Your task to perform on an android device: change the upload size in google photos Image 0: 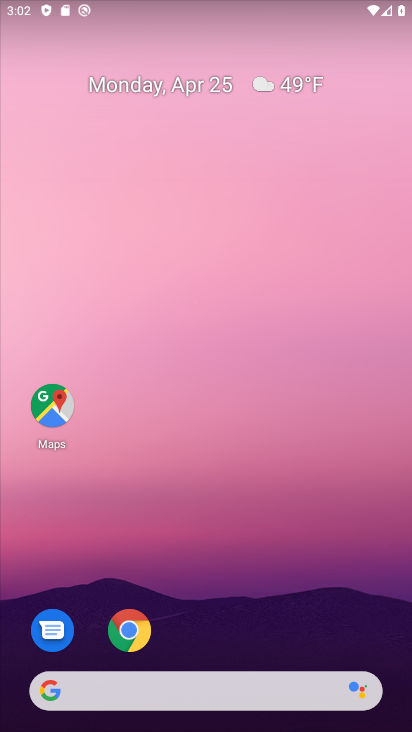
Step 0: drag from (320, 595) to (271, 43)
Your task to perform on an android device: change the upload size in google photos Image 1: 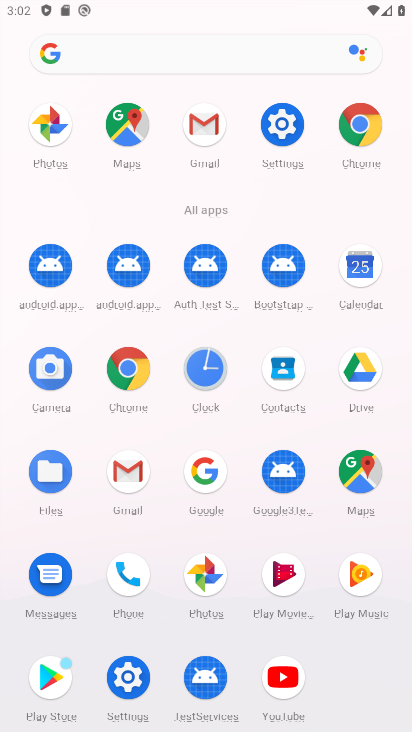
Step 1: click (54, 121)
Your task to perform on an android device: change the upload size in google photos Image 2: 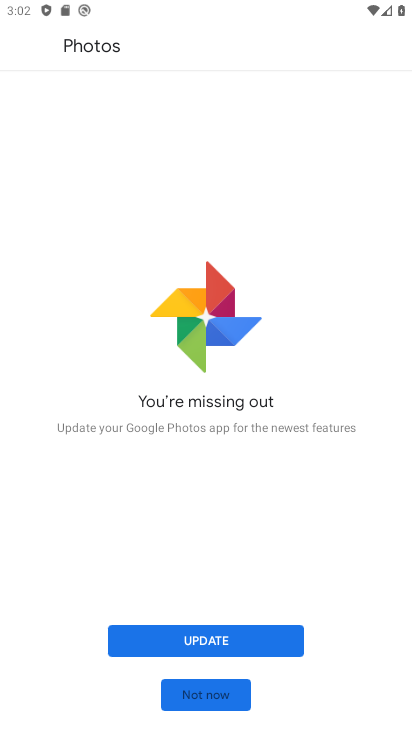
Step 2: click (239, 641)
Your task to perform on an android device: change the upload size in google photos Image 3: 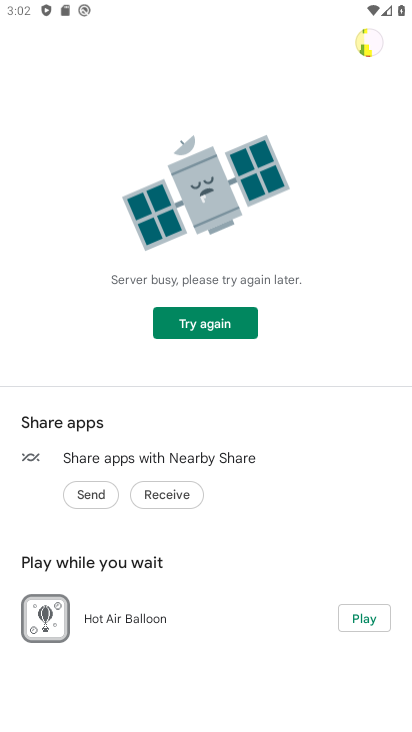
Step 3: click (216, 327)
Your task to perform on an android device: change the upload size in google photos Image 4: 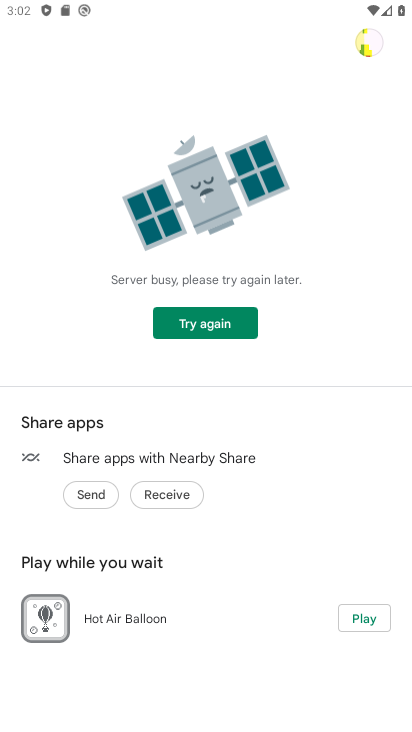
Step 4: click (216, 327)
Your task to perform on an android device: change the upload size in google photos Image 5: 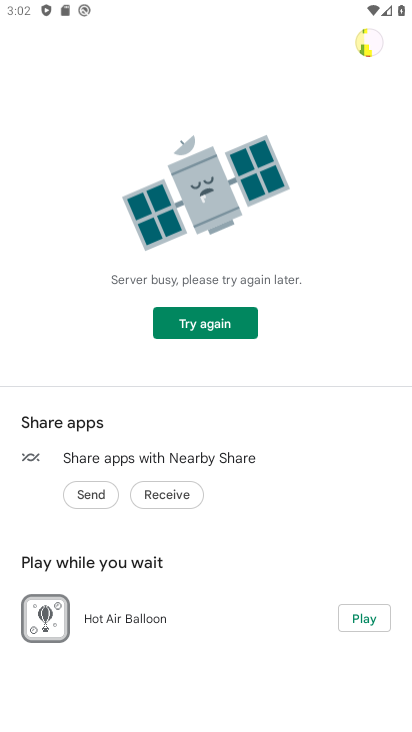
Step 5: click (216, 327)
Your task to perform on an android device: change the upload size in google photos Image 6: 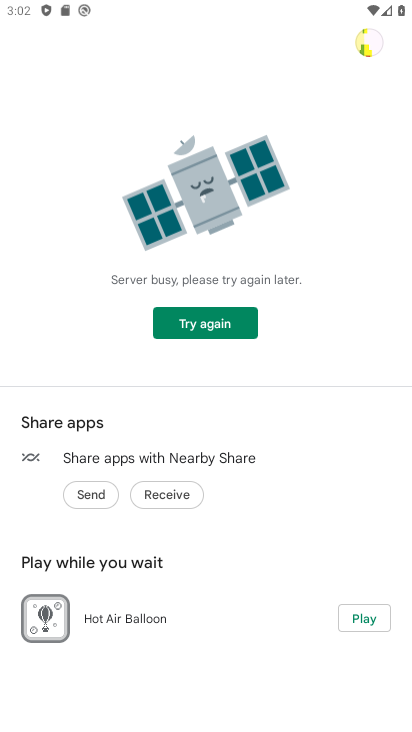
Step 6: press back button
Your task to perform on an android device: change the upload size in google photos Image 7: 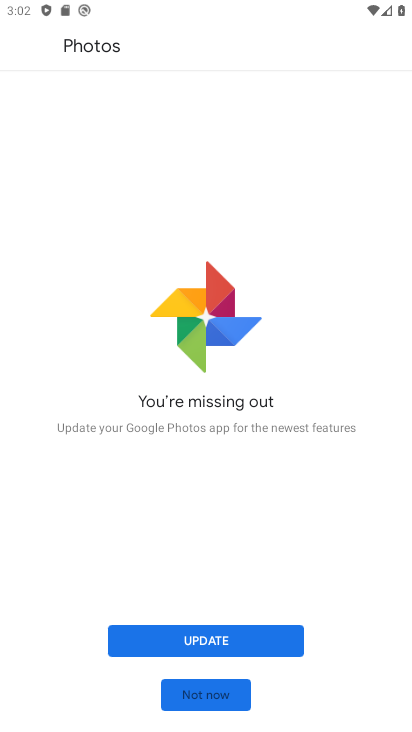
Step 7: press back button
Your task to perform on an android device: change the upload size in google photos Image 8: 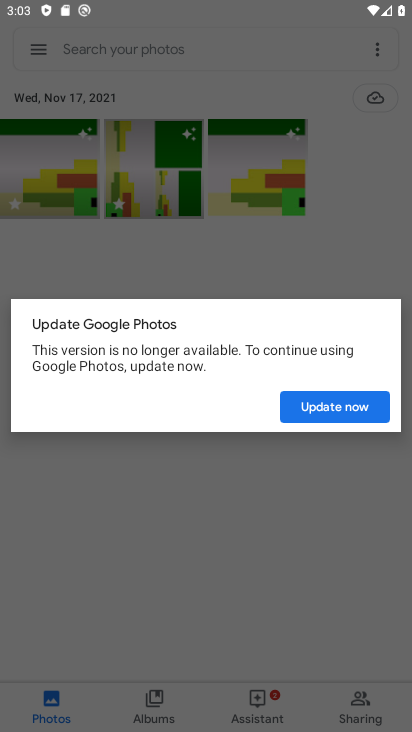
Step 8: press back button
Your task to perform on an android device: change the upload size in google photos Image 9: 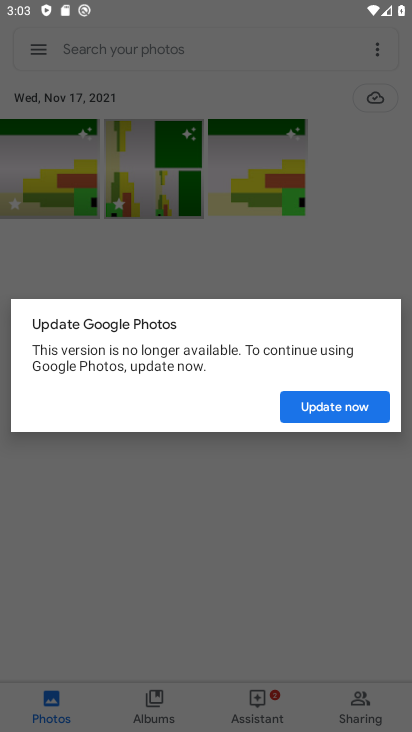
Step 9: click (373, 404)
Your task to perform on an android device: change the upload size in google photos Image 10: 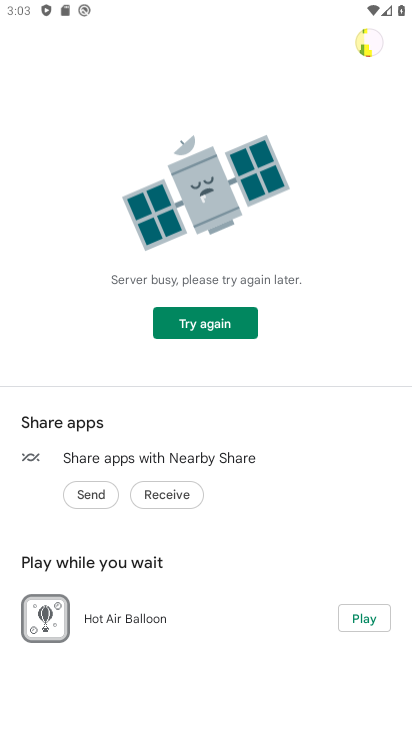
Step 10: click (237, 322)
Your task to perform on an android device: change the upload size in google photos Image 11: 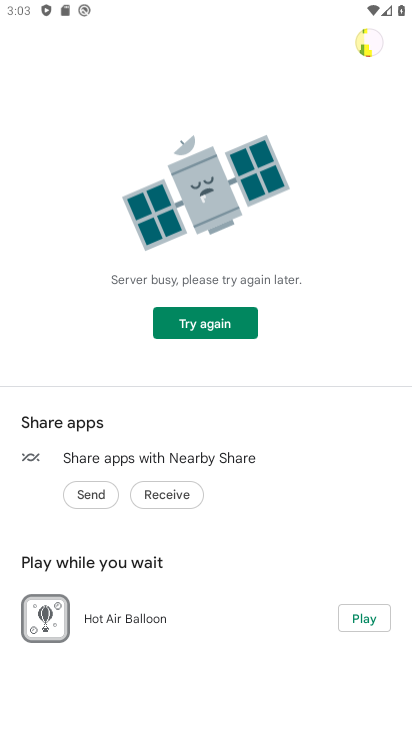
Step 11: task complete